Your task to perform on an android device: turn on showing notifications on the lock screen Image 0: 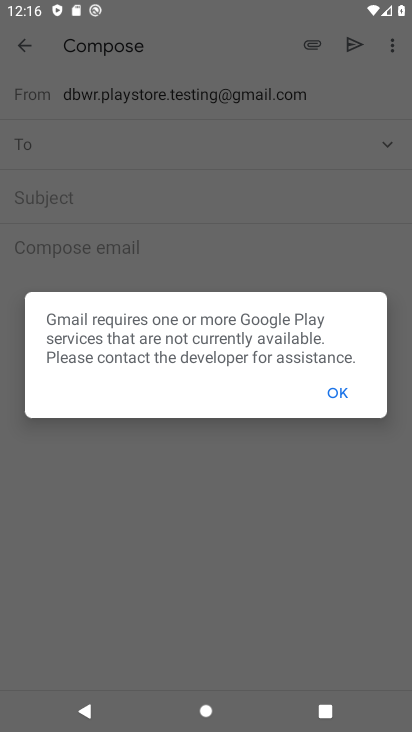
Step 0: press back button
Your task to perform on an android device: turn on showing notifications on the lock screen Image 1: 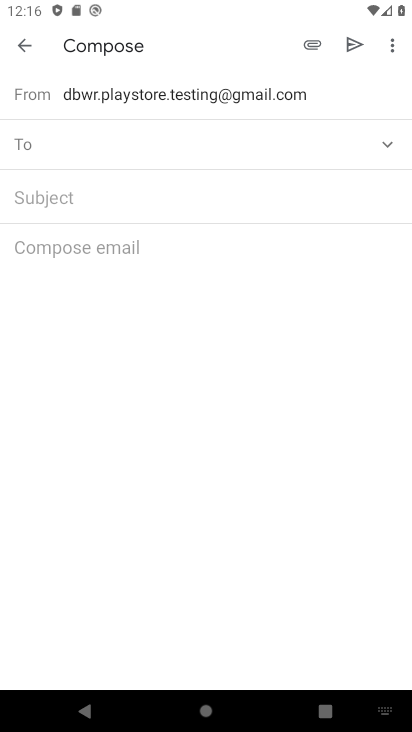
Step 1: click (22, 46)
Your task to perform on an android device: turn on showing notifications on the lock screen Image 2: 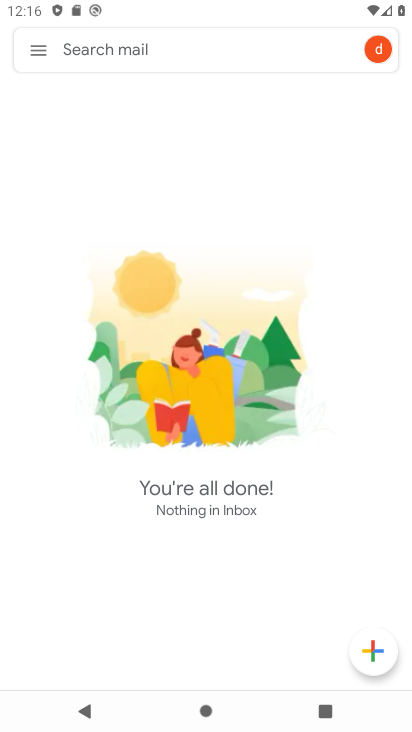
Step 2: press home button
Your task to perform on an android device: turn on showing notifications on the lock screen Image 3: 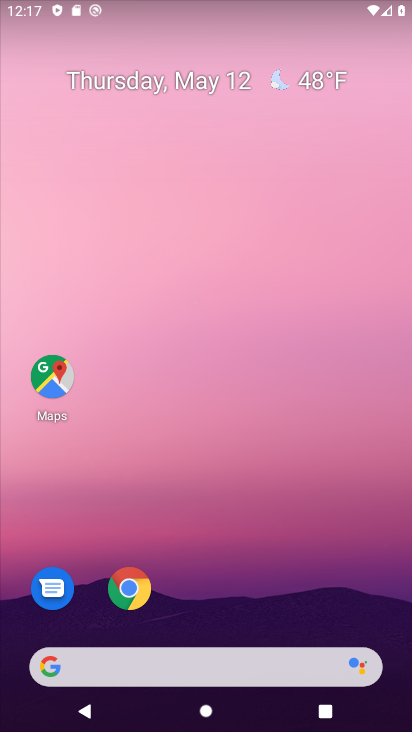
Step 3: drag from (269, 521) to (13, 4)
Your task to perform on an android device: turn on showing notifications on the lock screen Image 4: 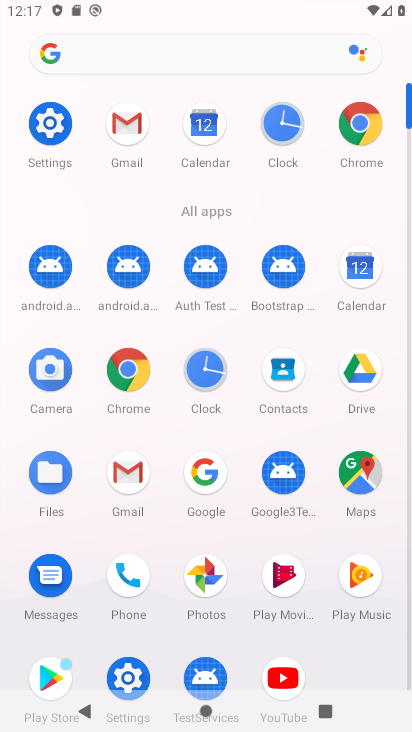
Step 4: click (42, 120)
Your task to perform on an android device: turn on showing notifications on the lock screen Image 5: 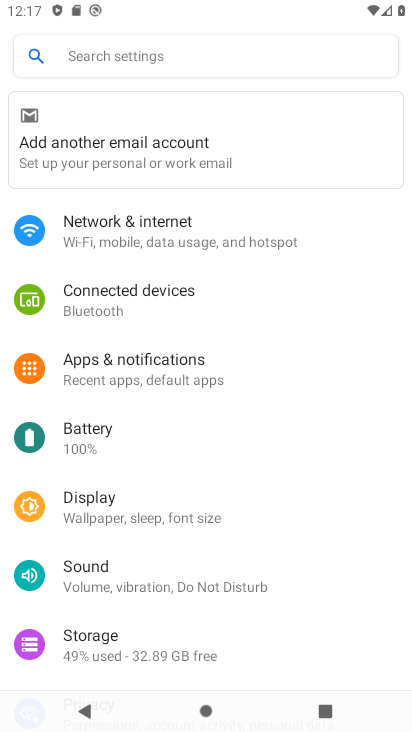
Step 5: click (133, 370)
Your task to perform on an android device: turn on showing notifications on the lock screen Image 6: 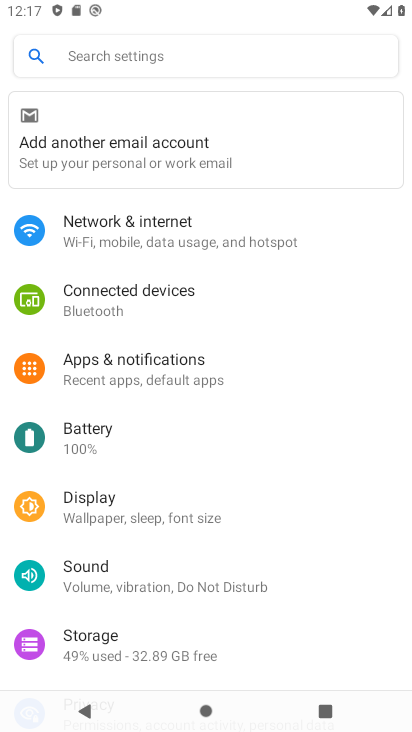
Step 6: click (169, 359)
Your task to perform on an android device: turn on showing notifications on the lock screen Image 7: 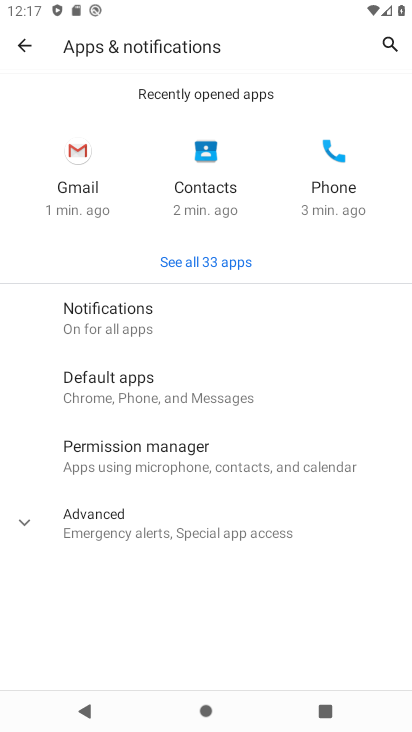
Step 7: click (116, 317)
Your task to perform on an android device: turn on showing notifications on the lock screen Image 8: 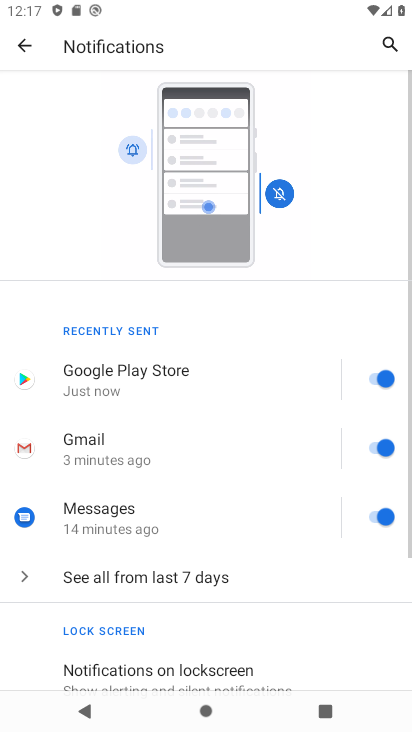
Step 8: drag from (77, 491) to (68, 187)
Your task to perform on an android device: turn on showing notifications on the lock screen Image 9: 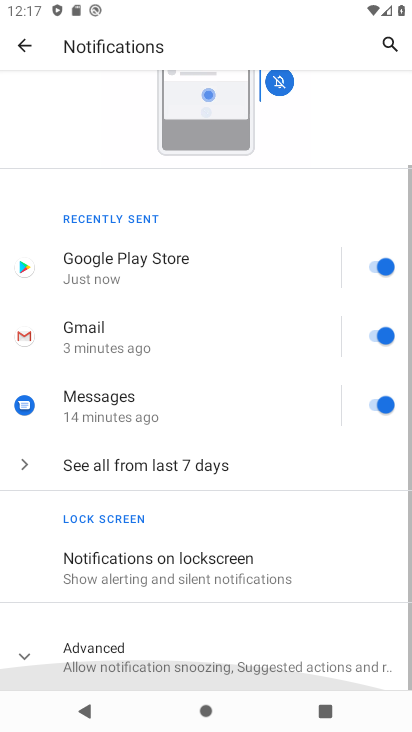
Step 9: drag from (192, 457) to (167, 54)
Your task to perform on an android device: turn on showing notifications on the lock screen Image 10: 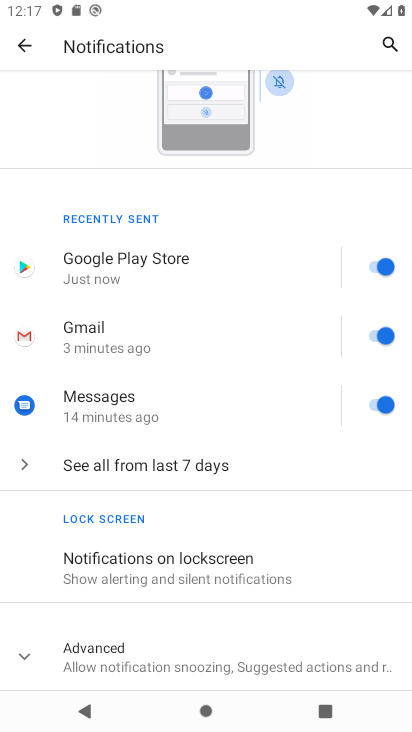
Step 10: click (168, 560)
Your task to perform on an android device: turn on showing notifications on the lock screen Image 11: 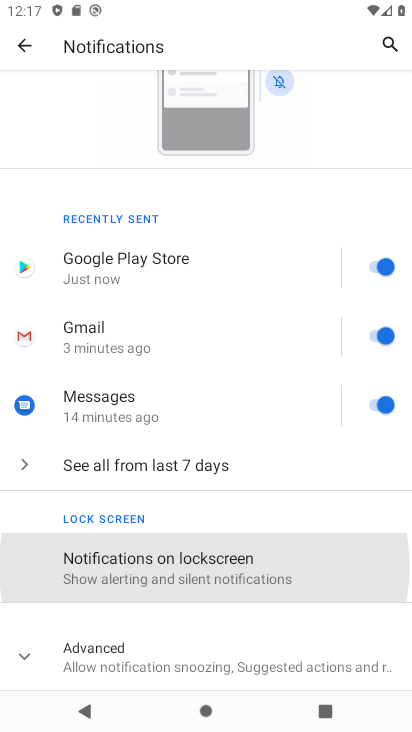
Step 11: click (168, 560)
Your task to perform on an android device: turn on showing notifications on the lock screen Image 12: 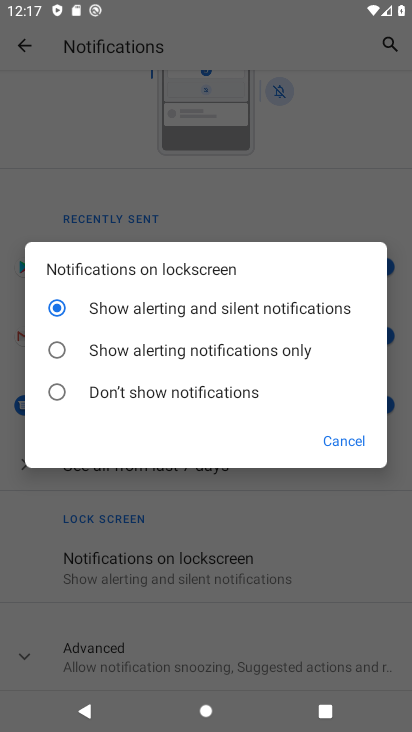
Step 12: click (346, 435)
Your task to perform on an android device: turn on showing notifications on the lock screen Image 13: 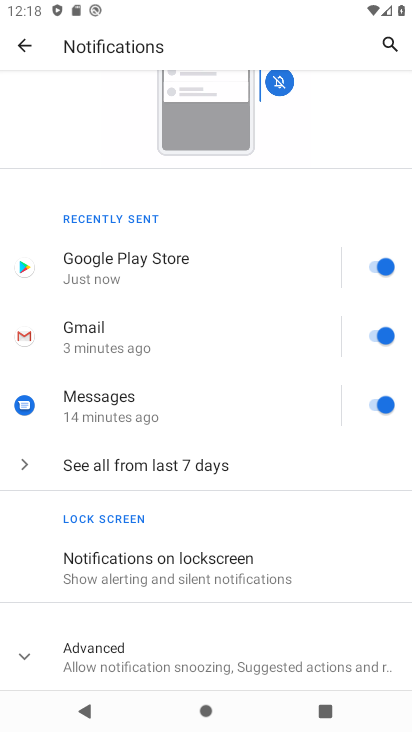
Step 13: task complete